Your task to perform on an android device: change notifications settings Image 0: 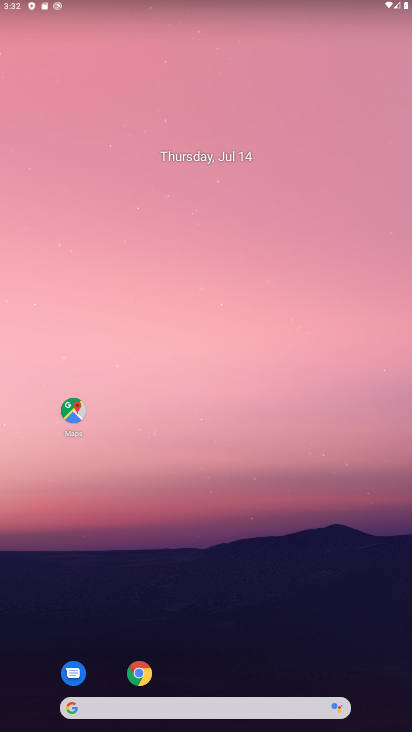
Step 0: press home button
Your task to perform on an android device: change notifications settings Image 1: 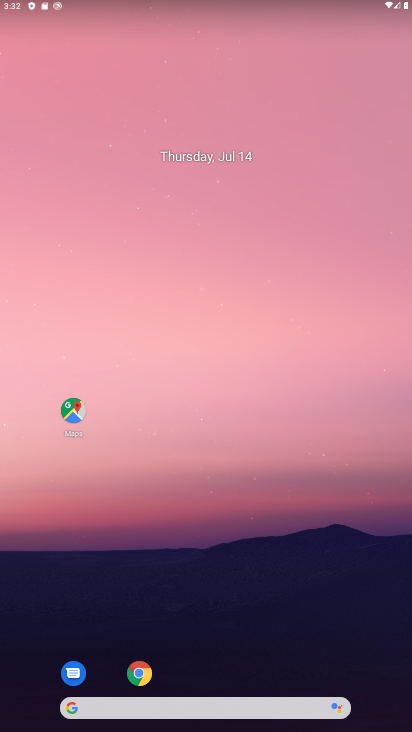
Step 1: click (138, 672)
Your task to perform on an android device: change notifications settings Image 2: 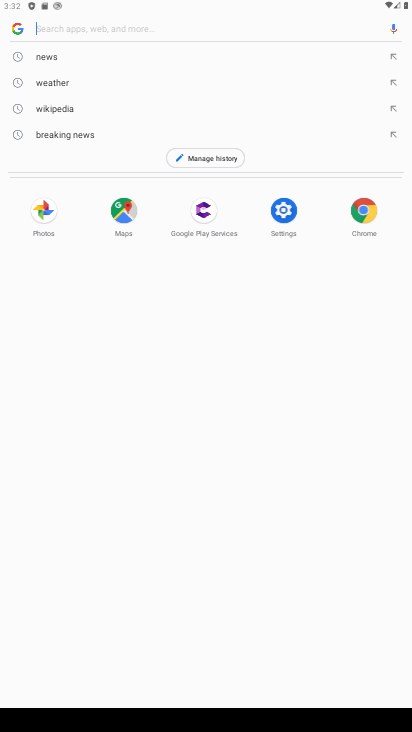
Step 2: press home button
Your task to perform on an android device: change notifications settings Image 3: 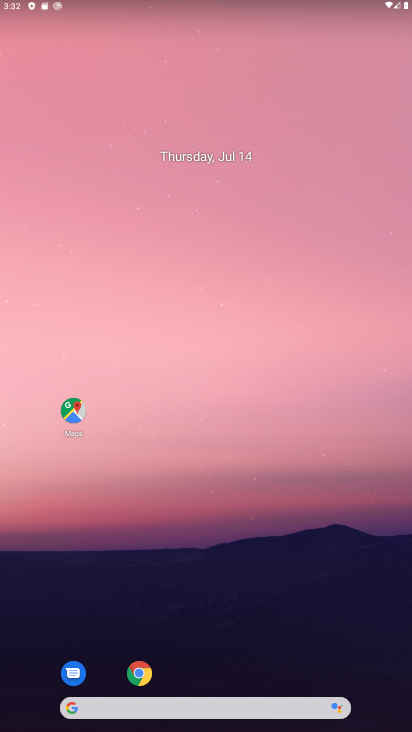
Step 3: drag from (195, 306) to (195, 6)
Your task to perform on an android device: change notifications settings Image 4: 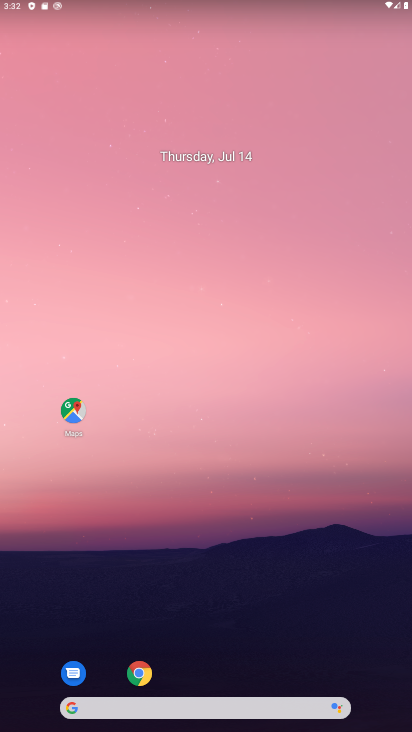
Step 4: drag from (216, 656) to (252, 10)
Your task to perform on an android device: change notifications settings Image 5: 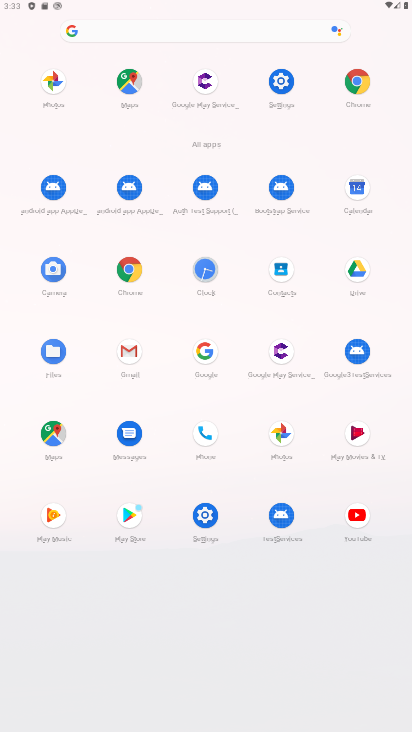
Step 5: click (284, 75)
Your task to perform on an android device: change notifications settings Image 6: 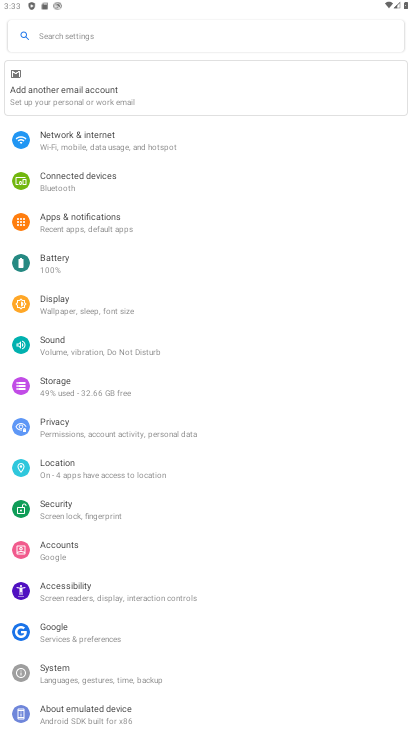
Step 6: click (137, 218)
Your task to perform on an android device: change notifications settings Image 7: 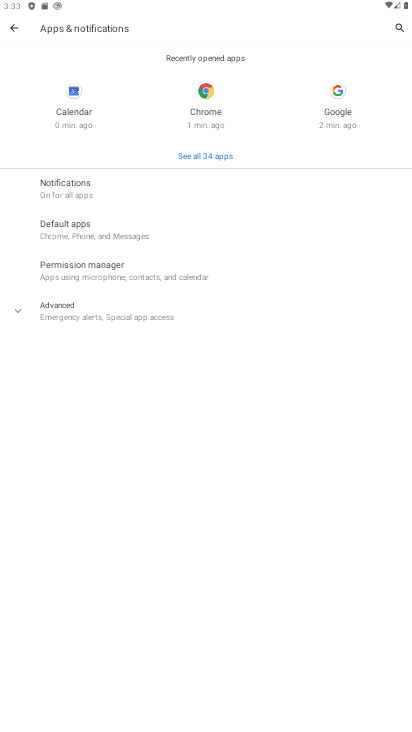
Step 7: click (115, 186)
Your task to perform on an android device: change notifications settings Image 8: 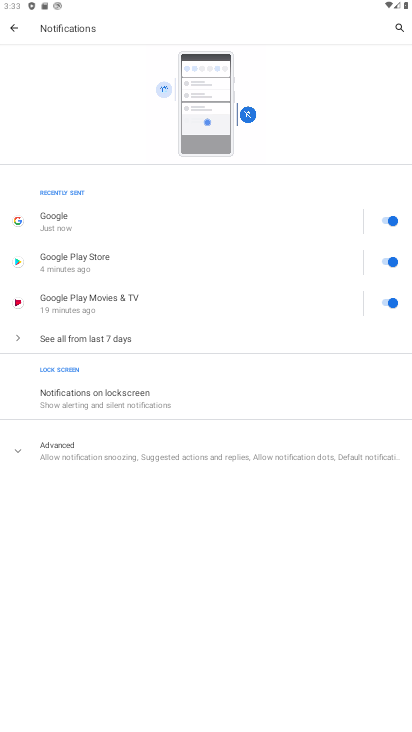
Step 8: click (14, 456)
Your task to perform on an android device: change notifications settings Image 9: 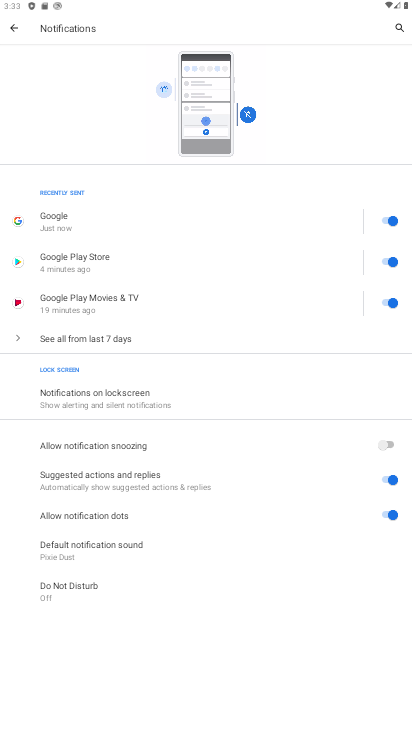
Step 9: click (390, 222)
Your task to perform on an android device: change notifications settings Image 10: 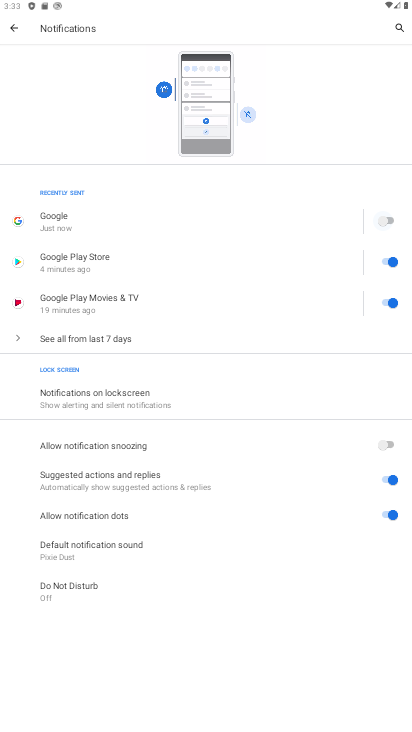
Step 10: click (388, 262)
Your task to perform on an android device: change notifications settings Image 11: 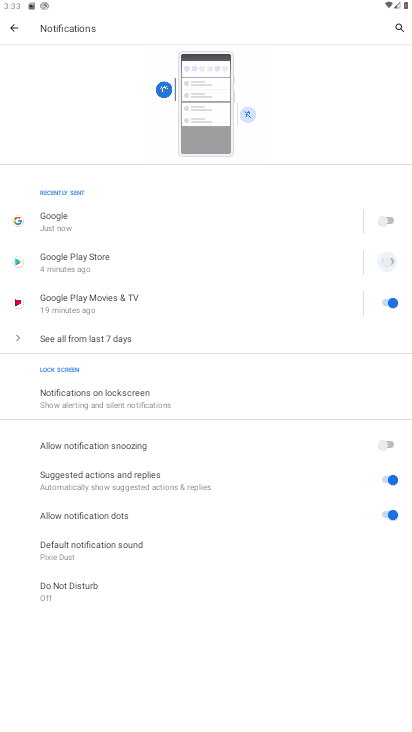
Step 11: click (391, 293)
Your task to perform on an android device: change notifications settings Image 12: 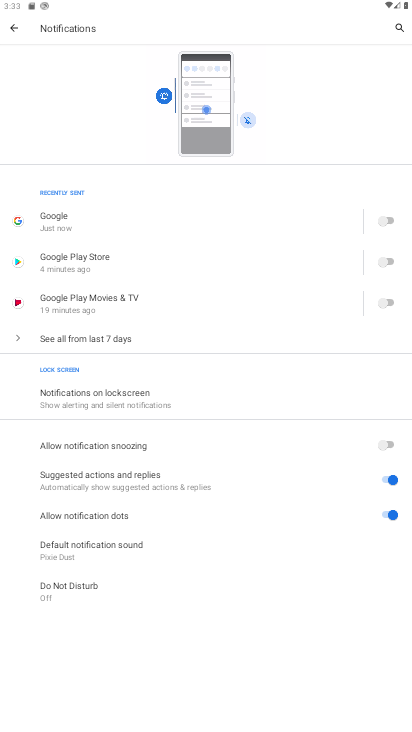
Step 12: click (382, 471)
Your task to perform on an android device: change notifications settings Image 13: 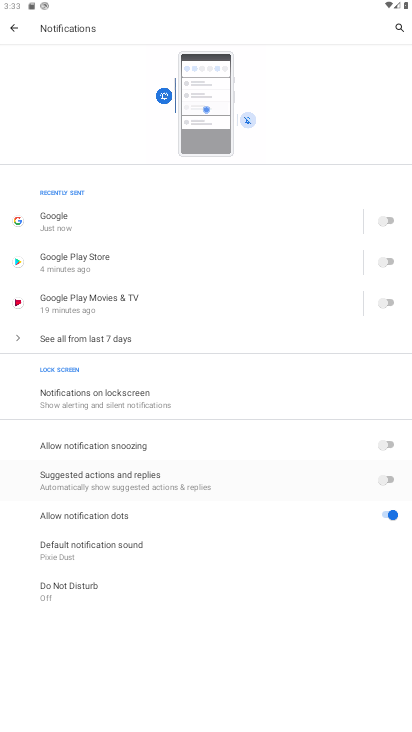
Step 13: click (388, 518)
Your task to perform on an android device: change notifications settings Image 14: 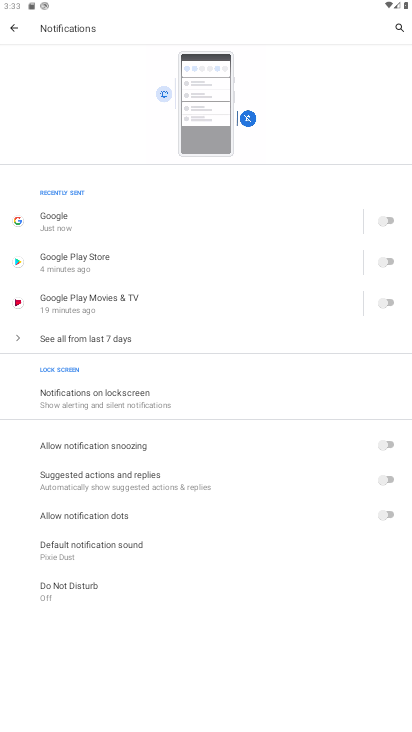
Step 14: task complete